Your task to perform on an android device: Search for hotels in London Image 0: 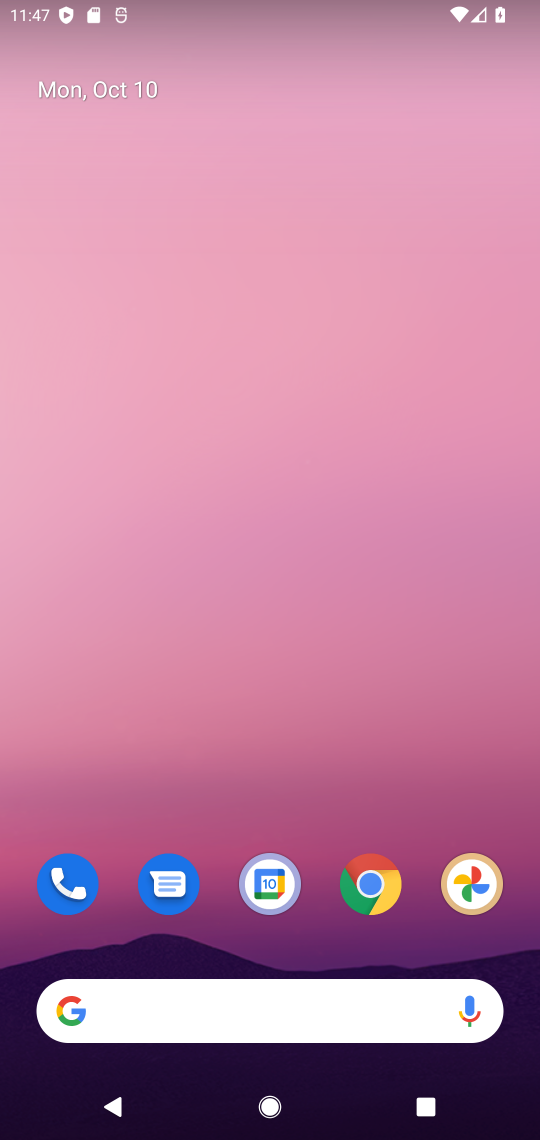
Step 0: click (372, 889)
Your task to perform on an android device: Search for hotels in London Image 1: 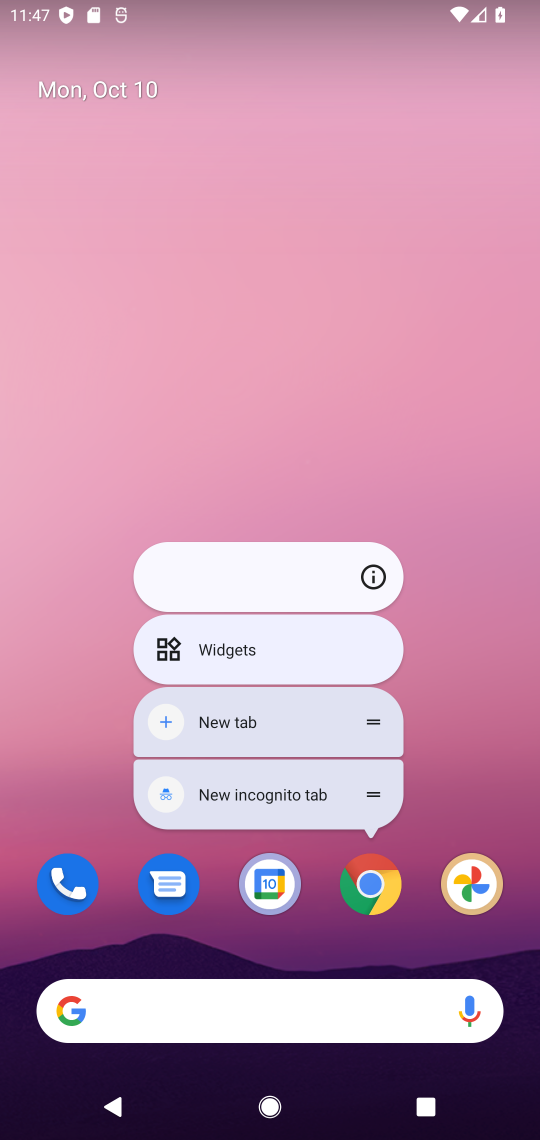
Step 1: click (384, 884)
Your task to perform on an android device: Search for hotels in London Image 2: 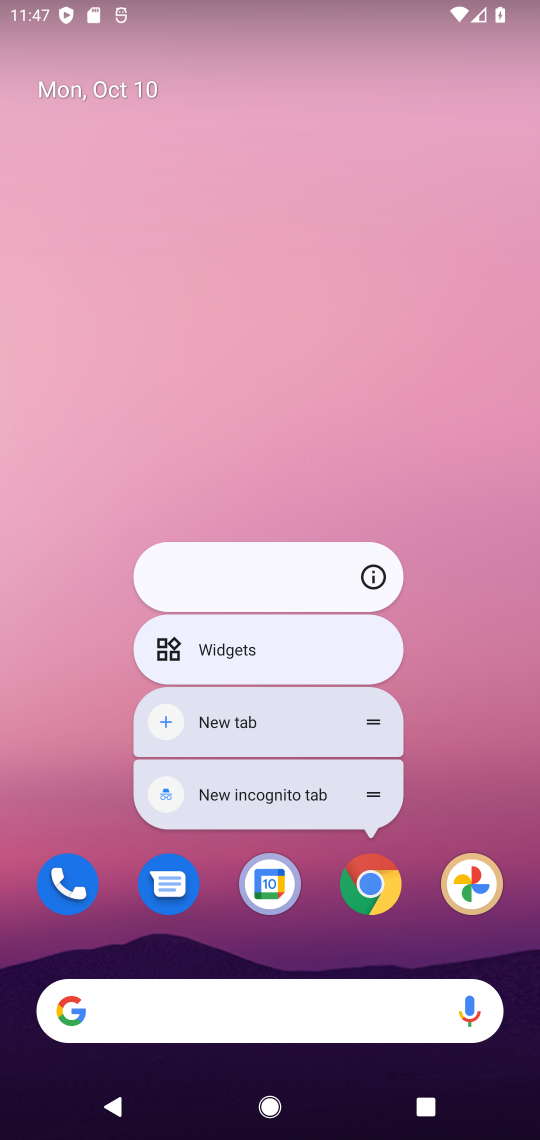
Step 2: click (371, 892)
Your task to perform on an android device: Search for hotels in London Image 3: 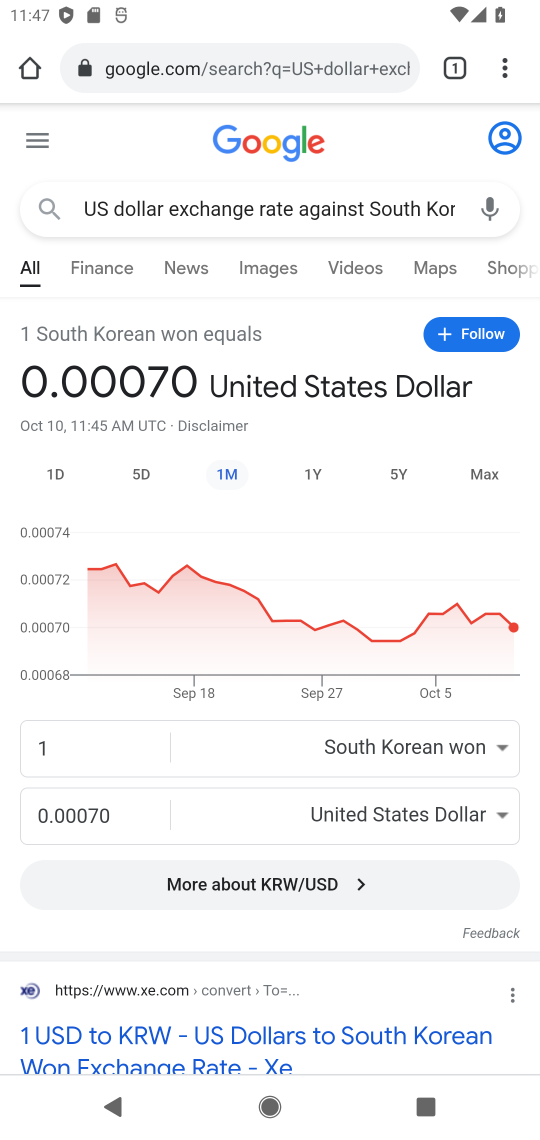
Step 3: click (308, 48)
Your task to perform on an android device: Search for hotels in London Image 4: 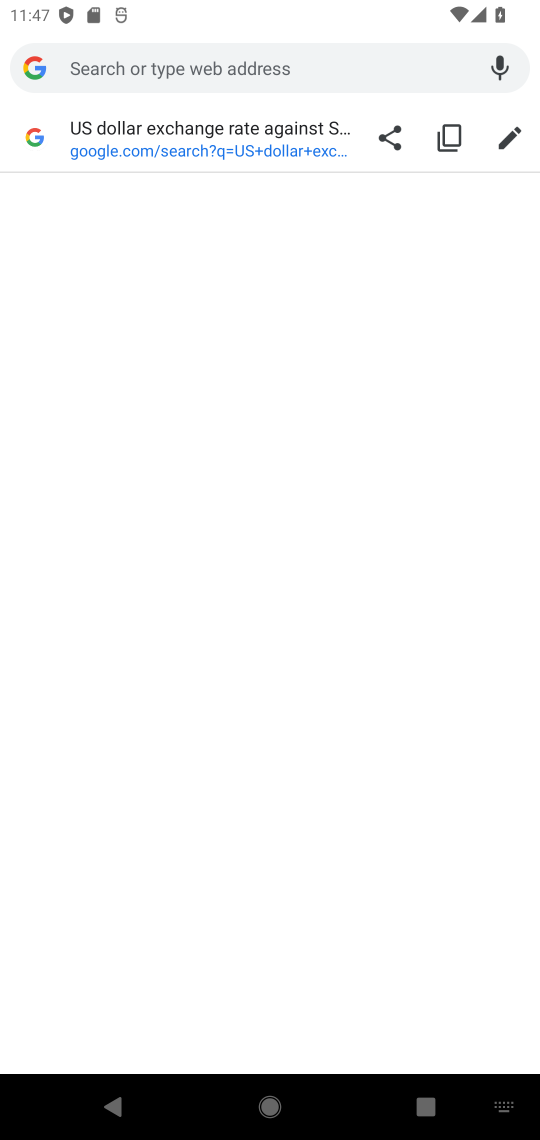
Step 4: type "hotels in London"
Your task to perform on an android device: Search for hotels in London Image 5: 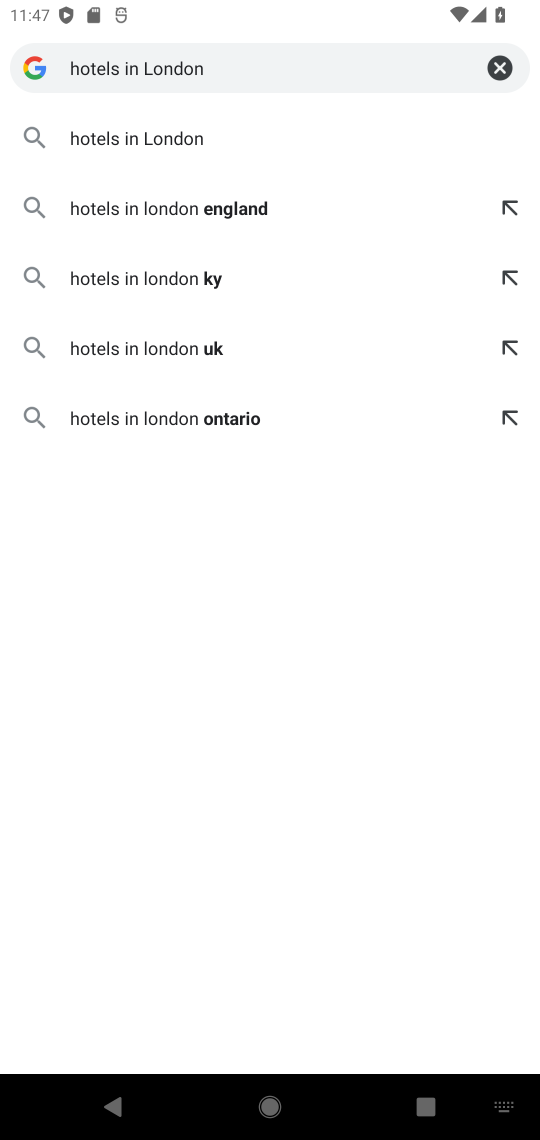
Step 5: press enter
Your task to perform on an android device: Search for hotels in London Image 6: 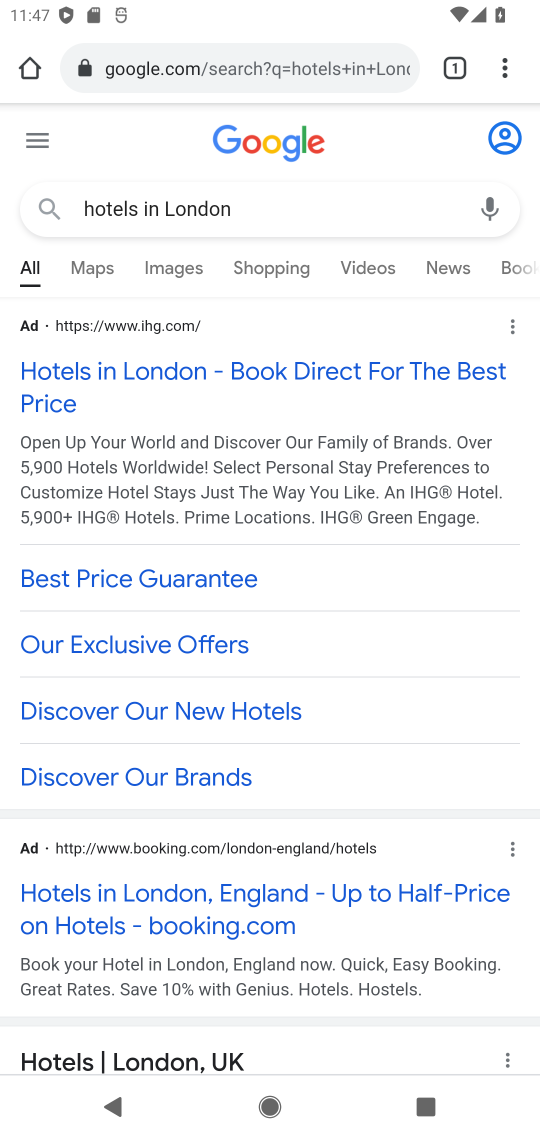
Step 6: drag from (408, 654) to (400, 394)
Your task to perform on an android device: Search for hotels in London Image 7: 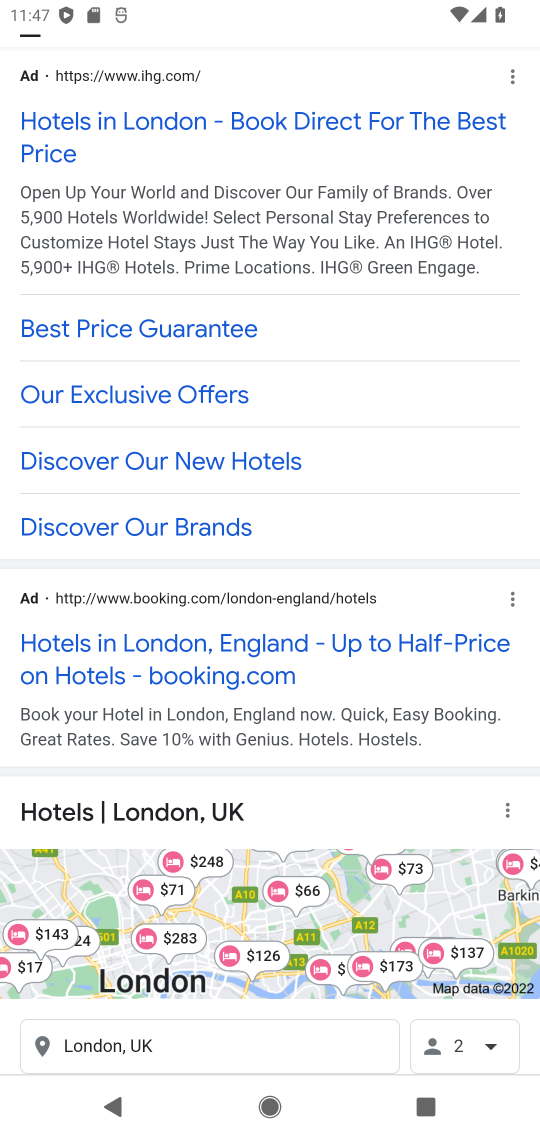
Step 7: click (216, 748)
Your task to perform on an android device: Search for hotels in London Image 8: 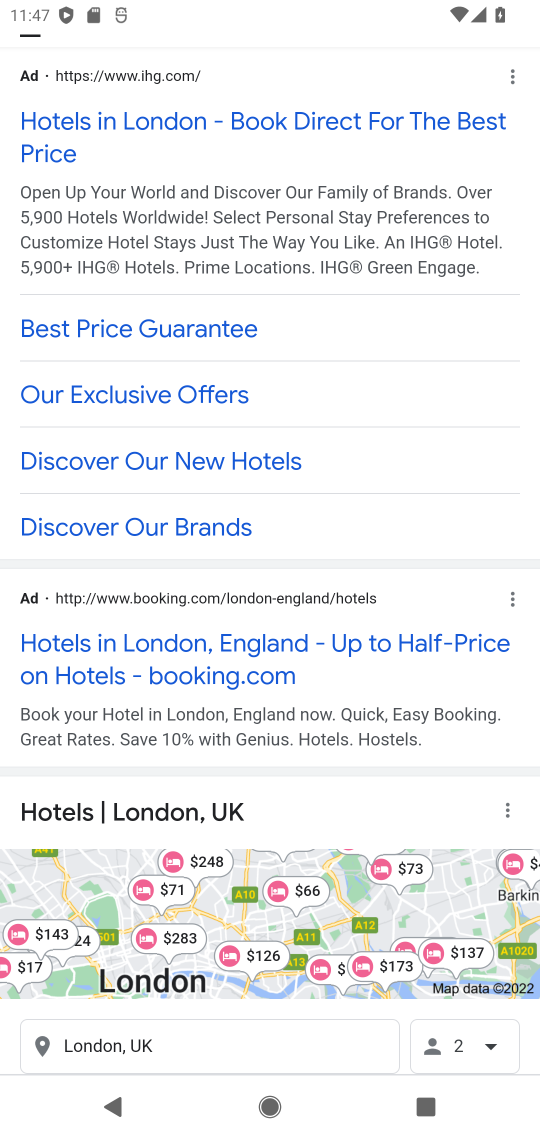
Step 8: click (238, 669)
Your task to perform on an android device: Search for hotels in London Image 9: 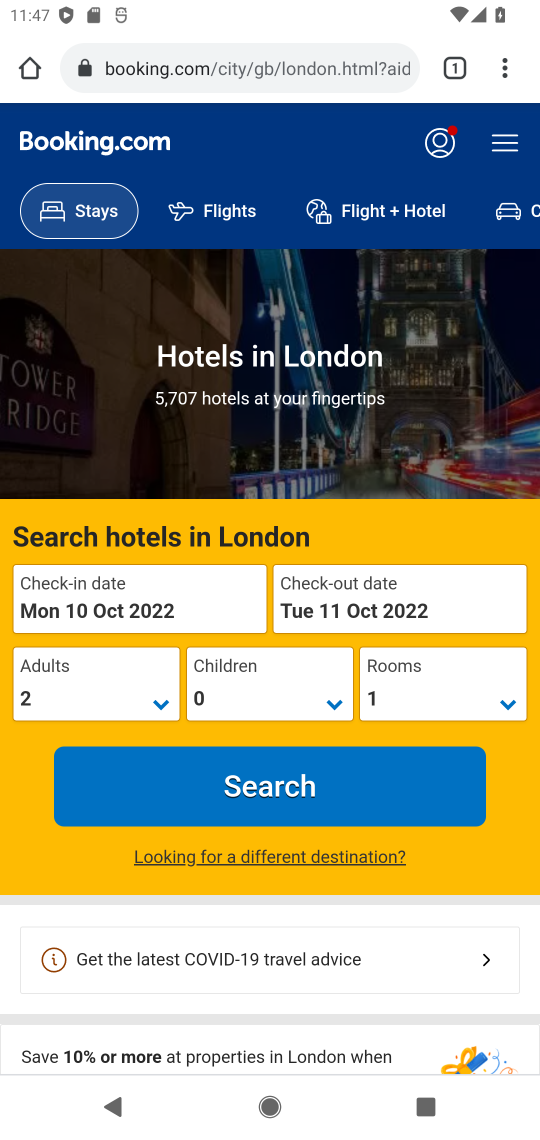
Step 9: task complete